Your task to perform on an android device: Search for vegetarian restaurants on Maps Image 0: 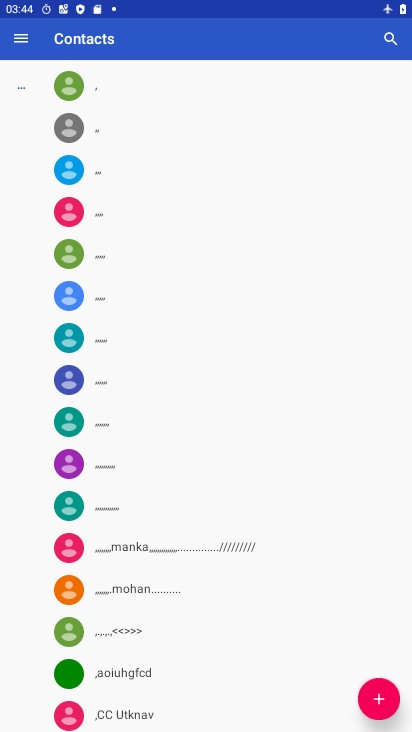
Step 0: press home button
Your task to perform on an android device: Search for vegetarian restaurants on Maps Image 1: 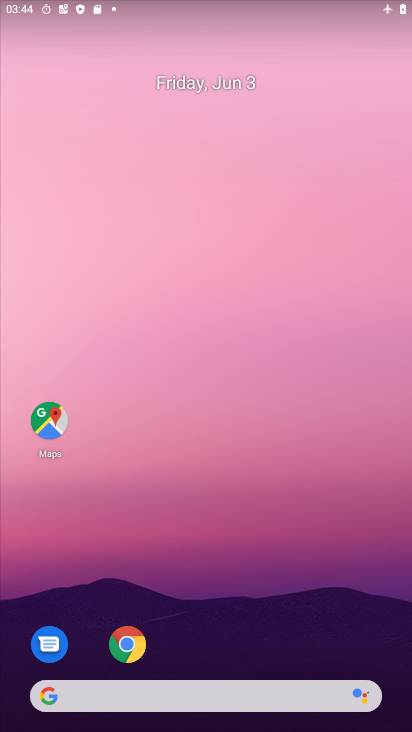
Step 1: click (37, 414)
Your task to perform on an android device: Search for vegetarian restaurants on Maps Image 2: 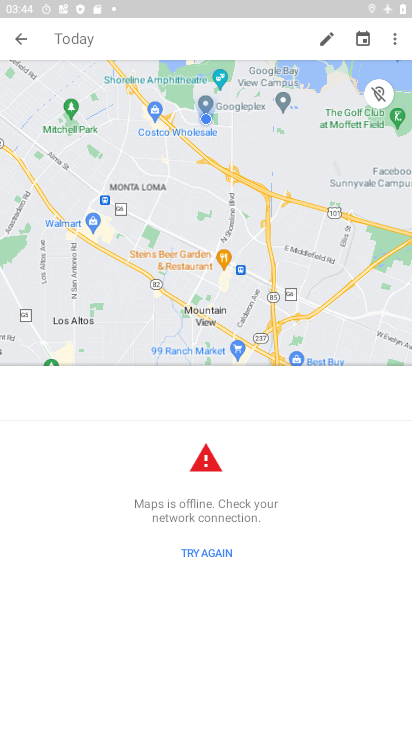
Step 2: click (26, 36)
Your task to perform on an android device: Search for vegetarian restaurants on Maps Image 3: 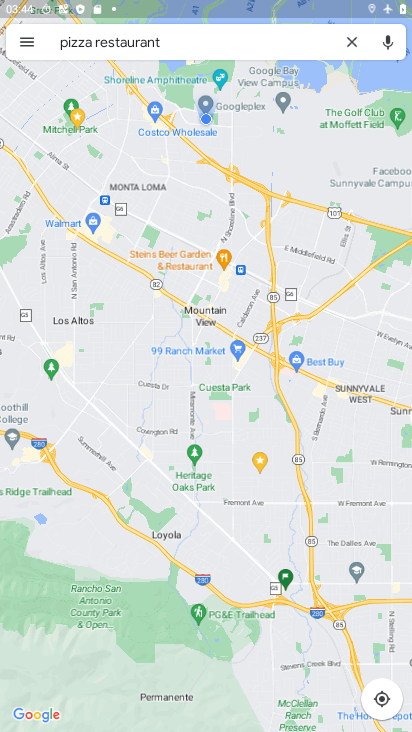
Step 3: click (174, 31)
Your task to perform on an android device: Search for vegetarian restaurants on Maps Image 4: 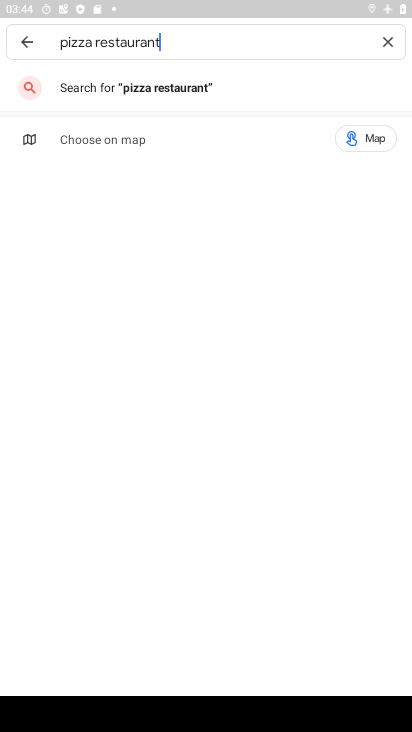
Step 4: click (383, 35)
Your task to perform on an android device: Search for vegetarian restaurants on Maps Image 5: 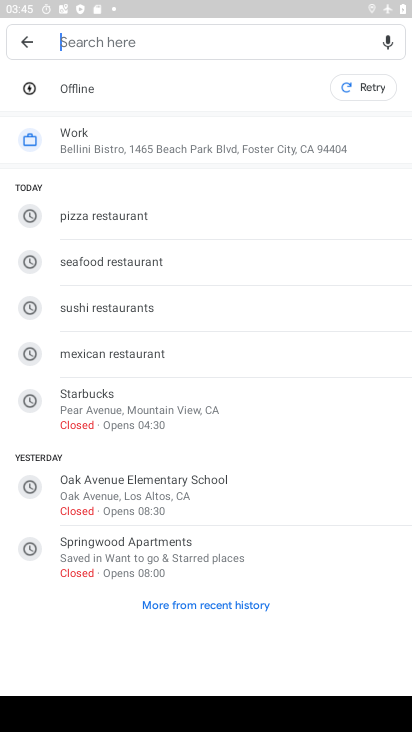
Step 5: click (112, 34)
Your task to perform on an android device: Search for vegetarian restaurants on Maps Image 6: 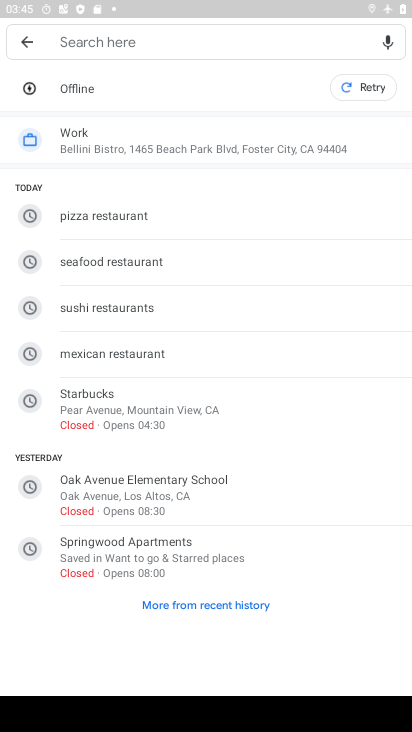
Step 6: type "vegetarian restaurants"
Your task to perform on an android device: Search for vegetarian restaurants on Maps Image 7: 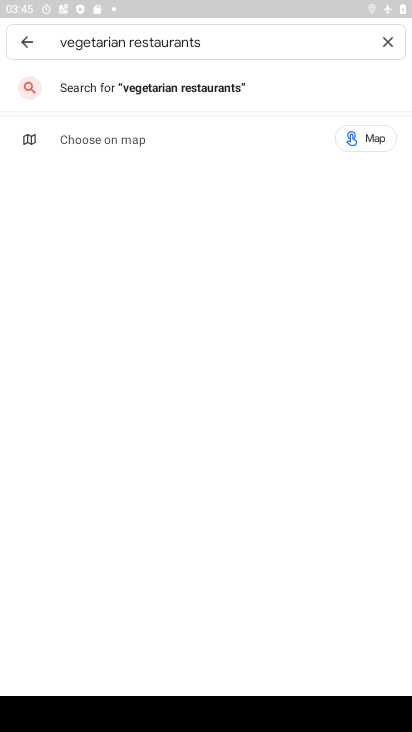
Step 7: click (213, 79)
Your task to perform on an android device: Search for vegetarian restaurants on Maps Image 8: 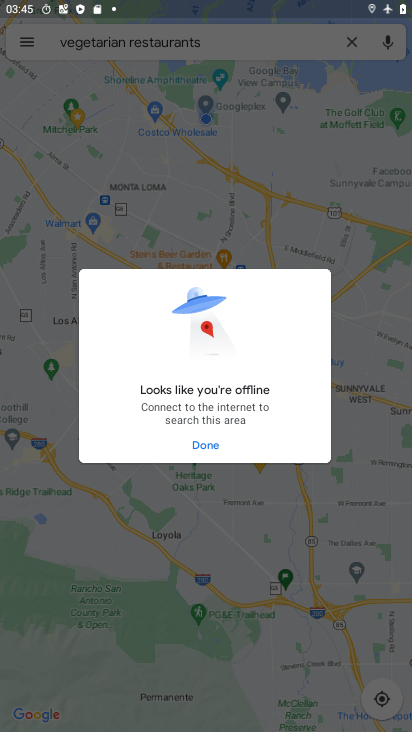
Step 8: task complete